Your task to perform on an android device: star an email in the gmail app Image 0: 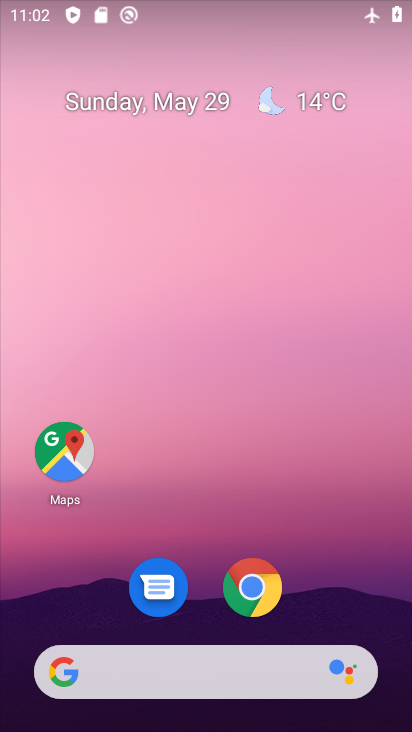
Step 0: drag from (332, 607) to (347, 144)
Your task to perform on an android device: star an email in the gmail app Image 1: 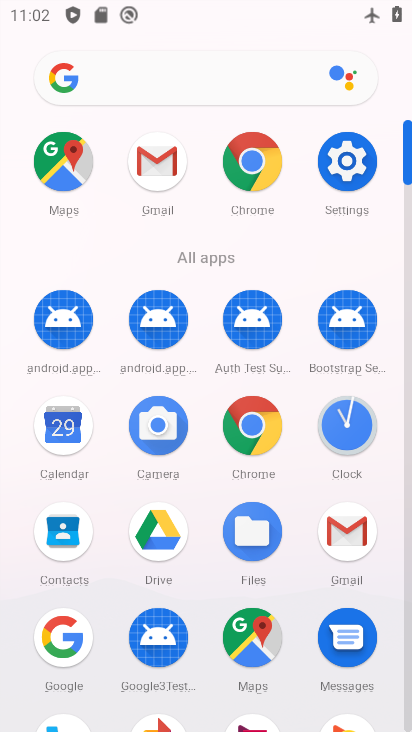
Step 1: click (346, 527)
Your task to perform on an android device: star an email in the gmail app Image 2: 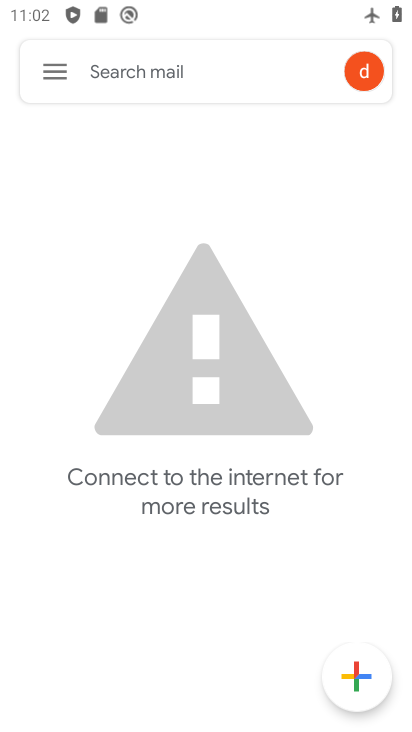
Step 2: click (55, 73)
Your task to perform on an android device: star an email in the gmail app Image 3: 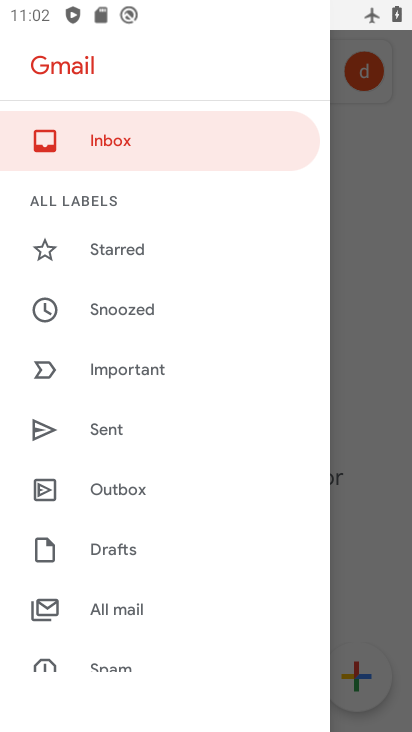
Step 3: drag from (192, 580) to (189, 338)
Your task to perform on an android device: star an email in the gmail app Image 4: 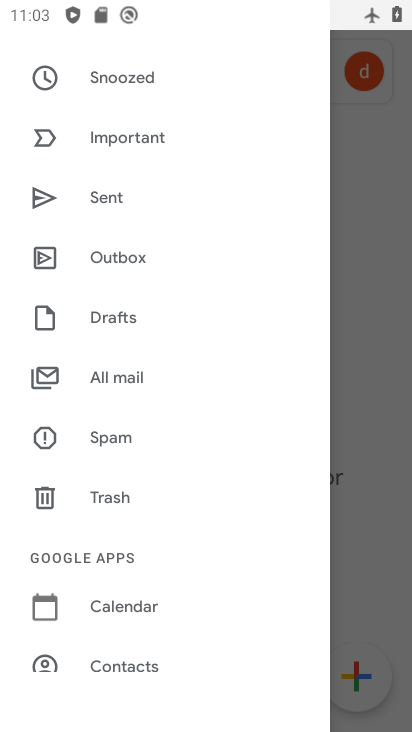
Step 4: click (168, 382)
Your task to perform on an android device: star an email in the gmail app Image 5: 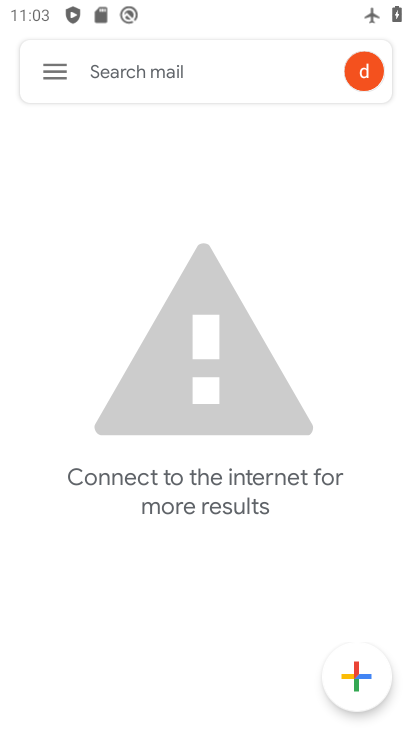
Step 5: task complete